Your task to perform on an android device: set the timer Image 0: 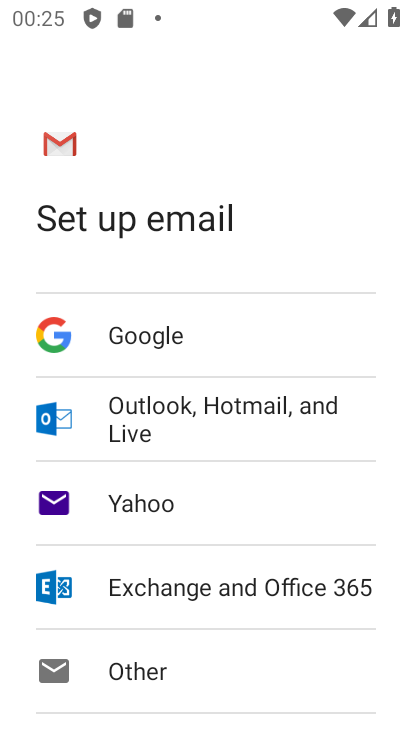
Step 0: press home button
Your task to perform on an android device: set the timer Image 1: 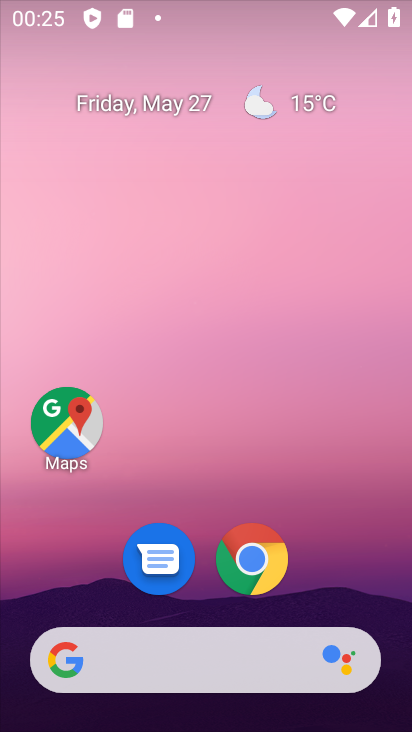
Step 1: drag from (302, 359) to (210, 90)
Your task to perform on an android device: set the timer Image 2: 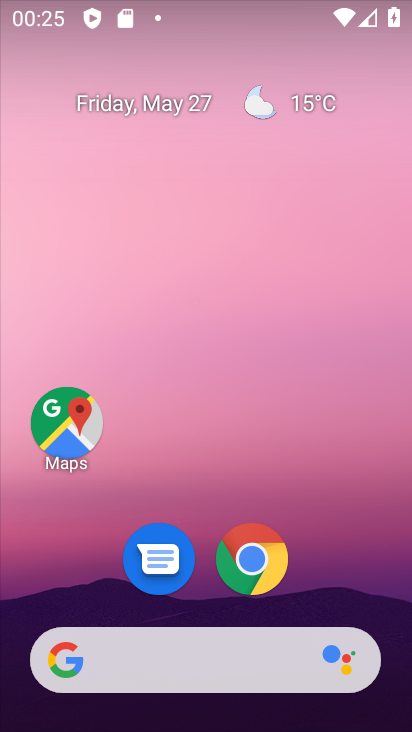
Step 2: drag from (345, 459) to (264, 15)
Your task to perform on an android device: set the timer Image 3: 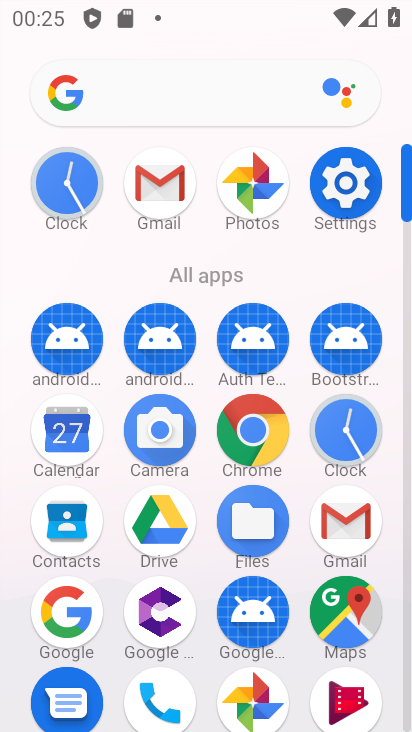
Step 3: click (54, 181)
Your task to perform on an android device: set the timer Image 4: 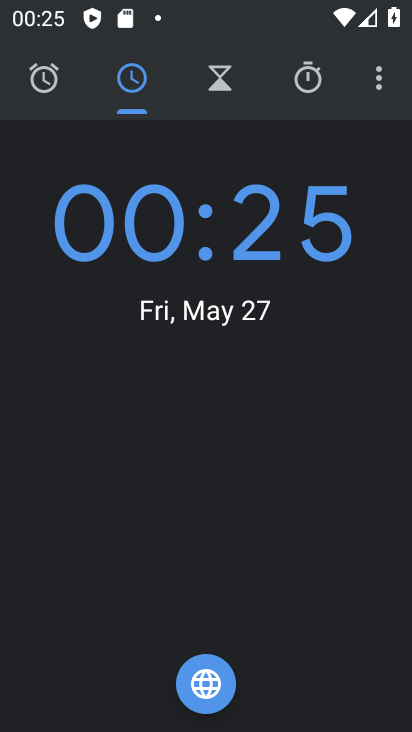
Step 4: click (221, 79)
Your task to perform on an android device: set the timer Image 5: 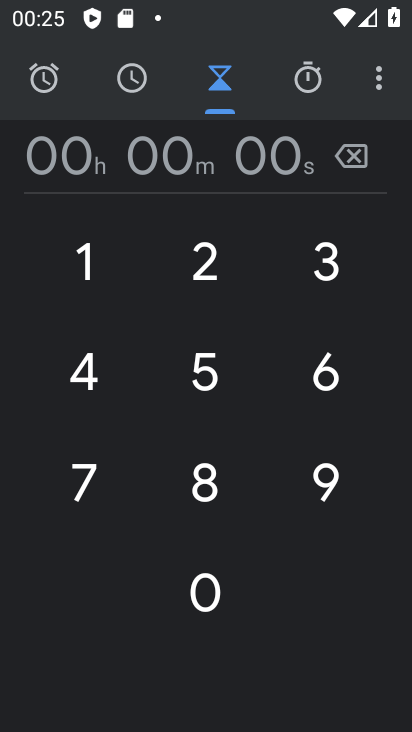
Step 5: click (97, 281)
Your task to perform on an android device: set the timer Image 6: 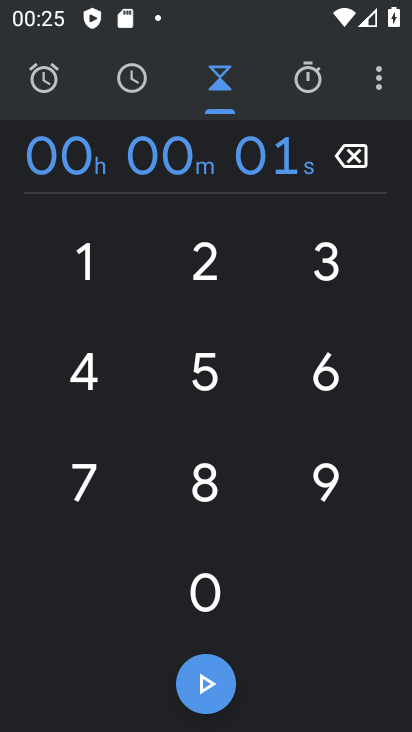
Step 6: click (96, 268)
Your task to perform on an android device: set the timer Image 7: 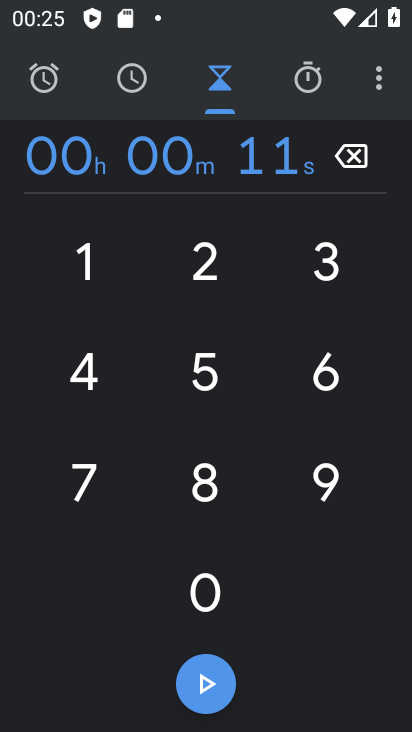
Step 7: click (97, 265)
Your task to perform on an android device: set the timer Image 8: 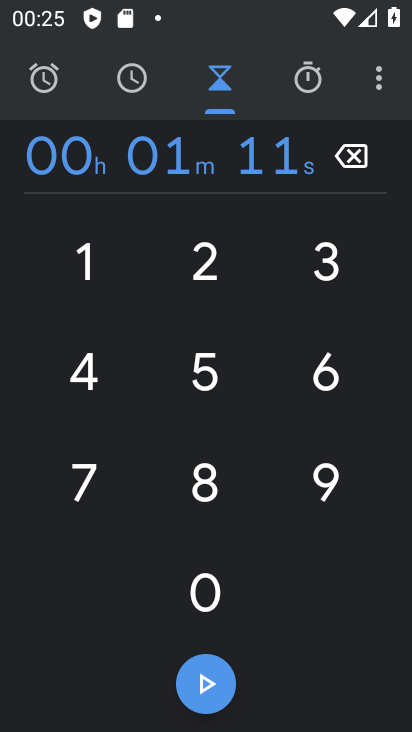
Step 8: click (98, 264)
Your task to perform on an android device: set the timer Image 9: 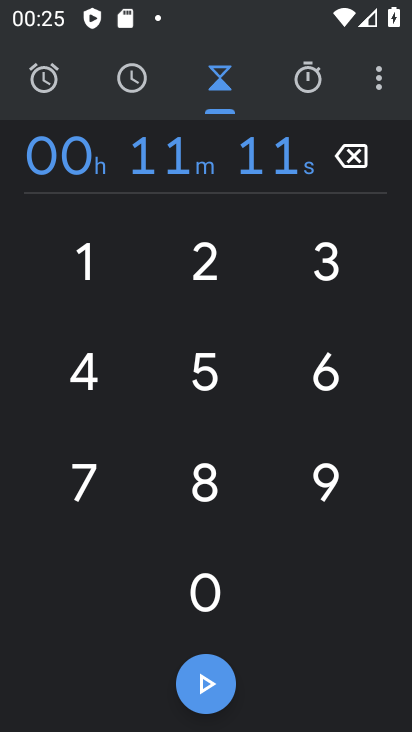
Step 9: click (99, 264)
Your task to perform on an android device: set the timer Image 10: 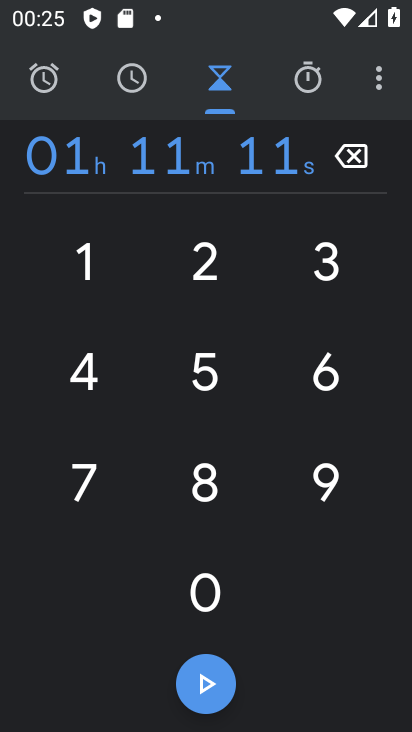
Step 10: click (99, 264)
Your task to perform on an android device: set the timer Image 11: 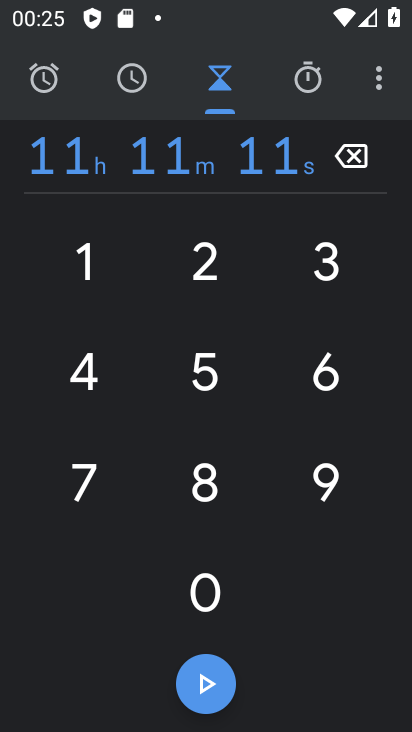
Step 11: click (224, 673)
Your task to perform on an android device: set the timer Image 12: 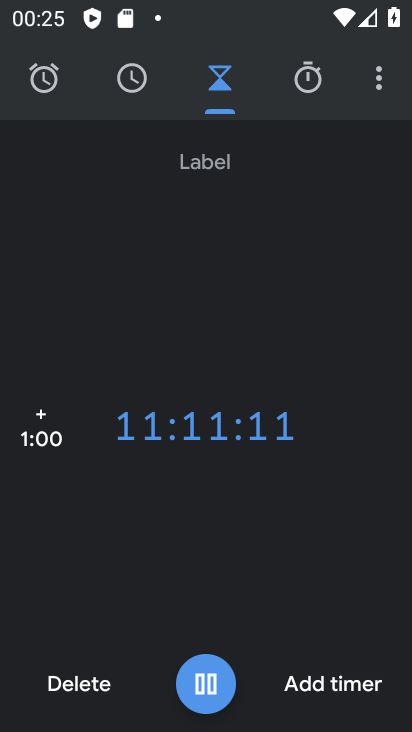
Step 12: task complete